Your task to perform on an android device: Open Google Chrome and click the shortcut for Amazon.com Image 0: 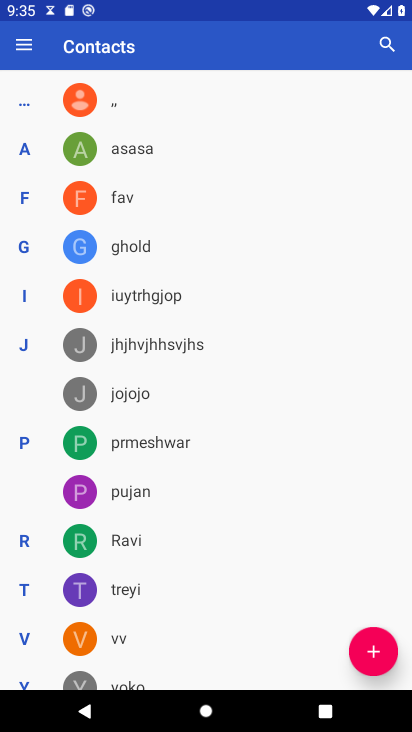
Step 0: press home button
Your task to perform on an android device: Open Google Chrome and click the shortcut for Amazon.com Image 1: 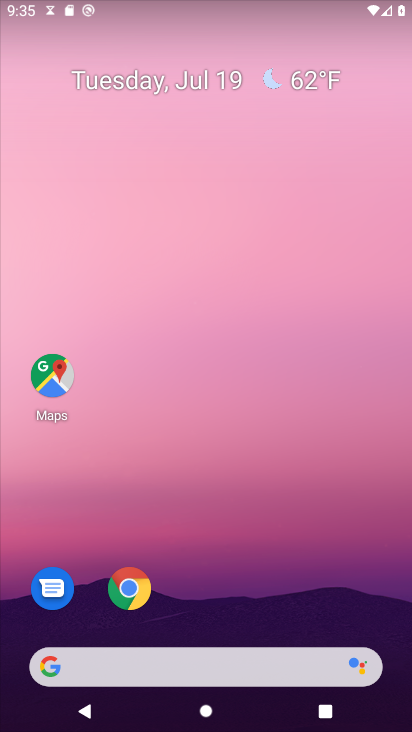
Step 1: click (117, 591)
Your task to perform on an android device: Open Google Chrome and click the shortcut for Amazon.com Image 2: 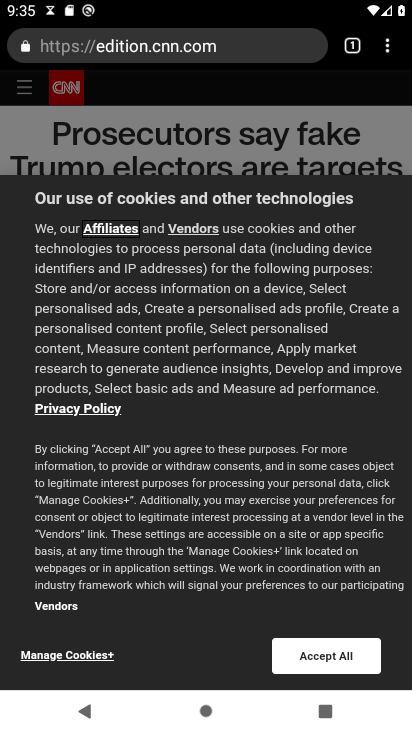
Step 2: click (351, 48)
Your task to perform on an android device: Open Google Chrome and click the shortcut for Amazon.com Image 3: 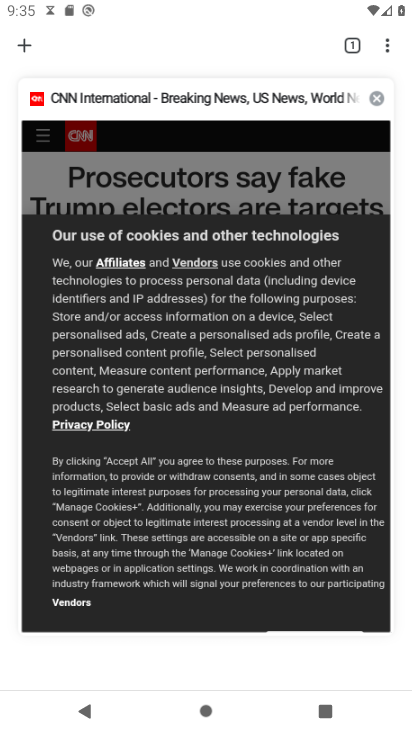
Step 3: click (27, 44)
Your task to perform on an android device: Open Google Chrome and click the shortcut for Amazon.com Image 4: 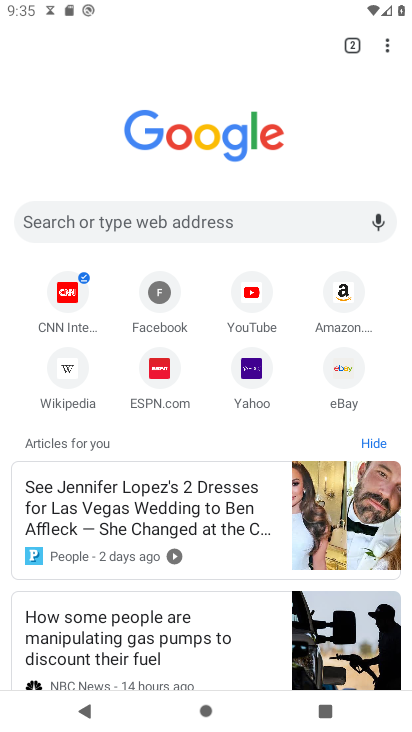
Step 4: click (343, 287)
Your task to perform on an android device: Open Google Chrome and click the shortcut for Amazon.com Image 5: 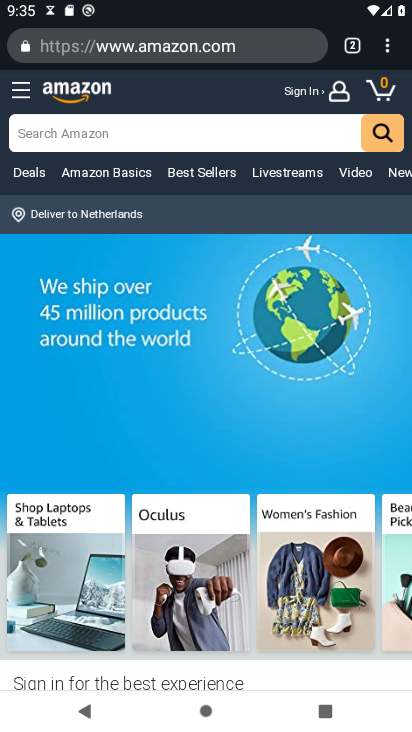
Step 5: task complete